Your task to perform on an android device: toggle data saver in the chrome app Image 0: 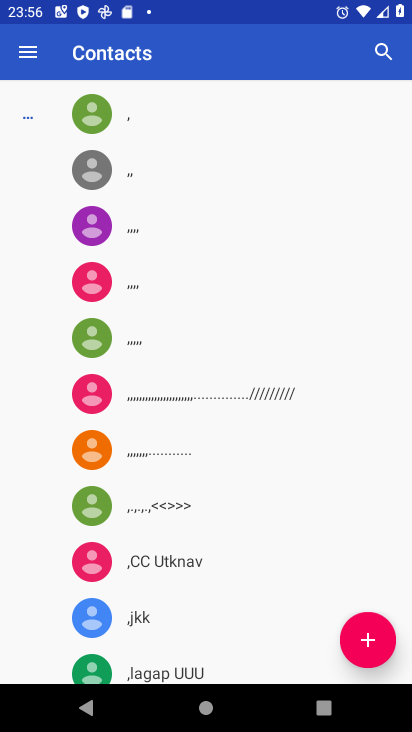
Step 0: press home button
Your task to perform on an android device: toggle data saver in the chrome app Image 1: 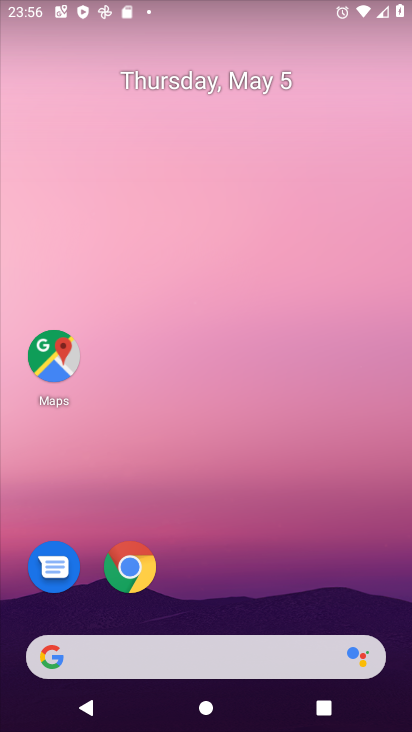
Step 1: click (134, 556)
Your task to perform on an android device: toggle data saver in the chrome app Image 2: 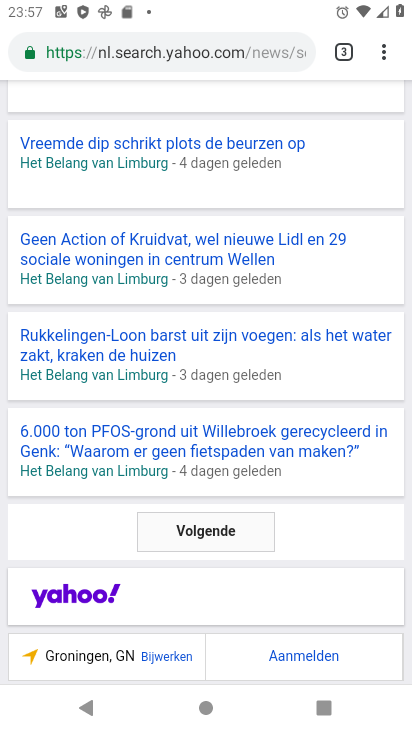
Step 2: drag from (316, 177) to (342, 541)
Your task to perform on an android device: toggle data saver in the chrome app Image 3: 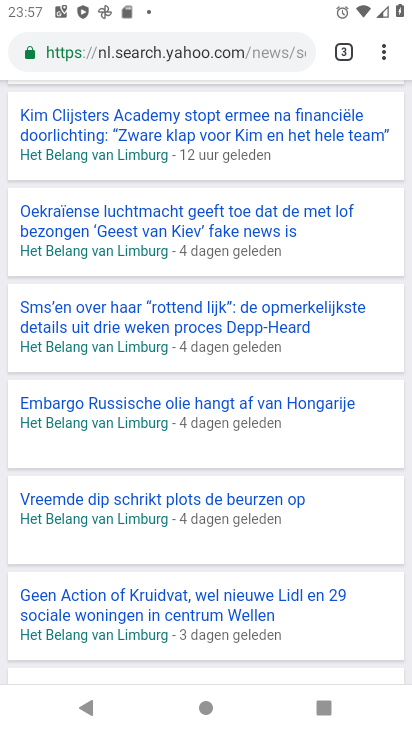
Step 3: click (381, 47)
Your task to perform on an android device: toggle data saver in the chrome app Image 4: 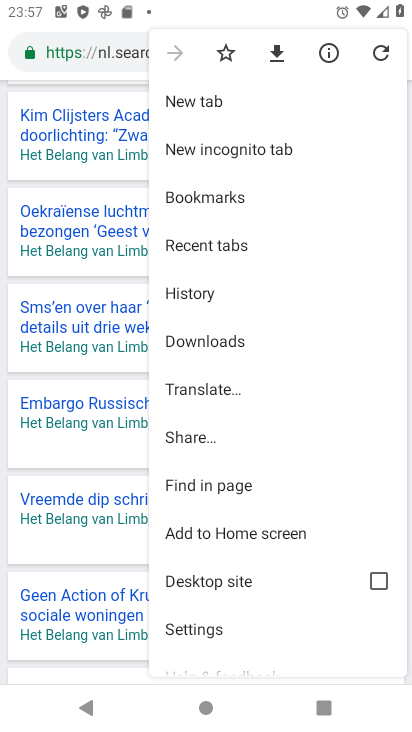
Step 4: drag from (259, 598) to (276, 350)
Your task to perform on an android device: toggle data saver in the chrome app Image 5: 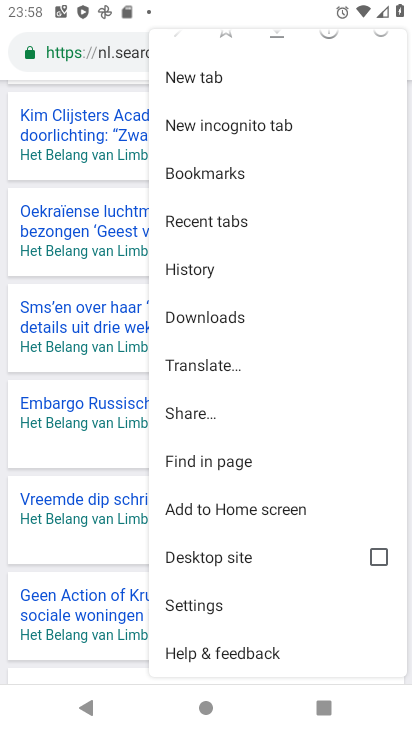
Step 5: click (220, 607)
Your task to perform on an android device: toggle data saver in the chrome app Image 6: 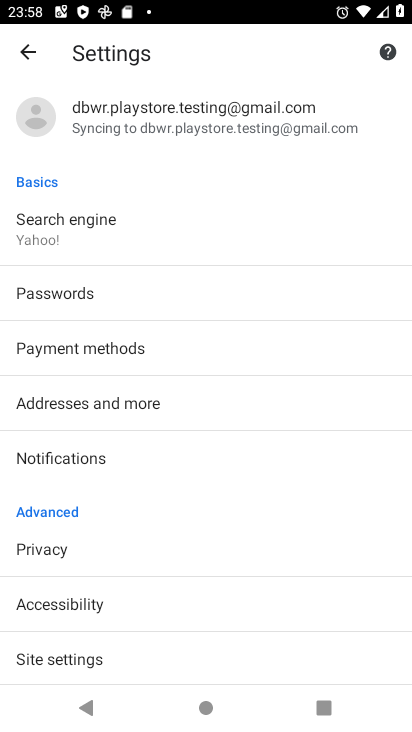
Step 6: drag from (164, 601) to (163, 372)
Your task to perform on an android device: toggle data saver in the chrome app Image 7: 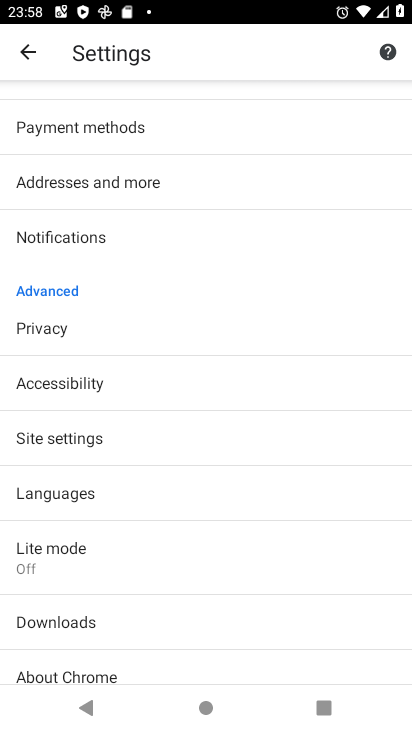
Step 7: drag from (163, 576) to (178, 432)
Your task to perform on an android device: toggle data saver in the chrome app Image 8: 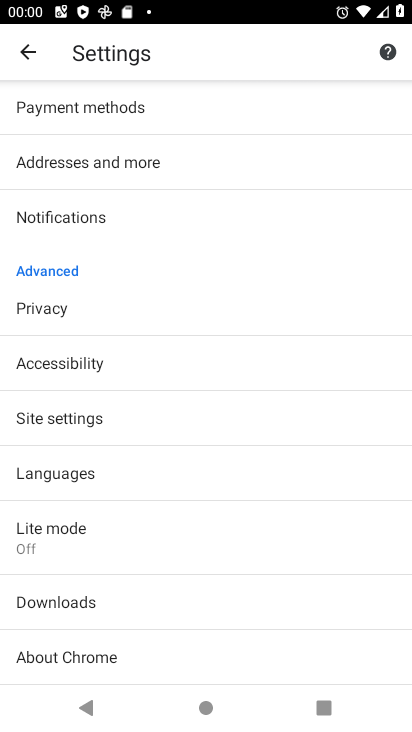
Step 8: drag from (161, 244) to (167, 542)
Your task to perform on an android device: toggle data saver in the chrome app Image 9: 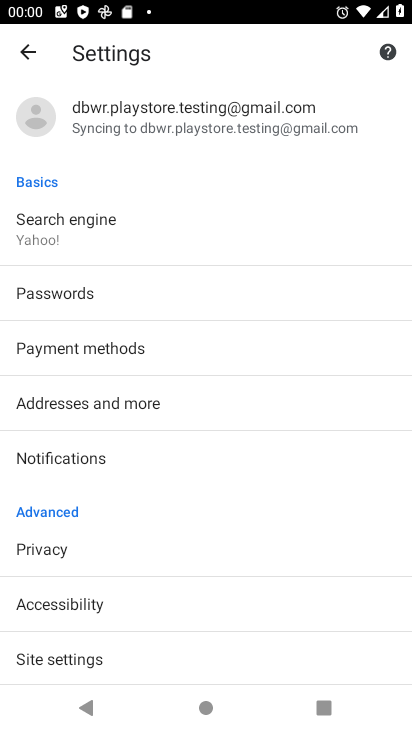
Step 9: drag from (186, 656) to (169, 345)
Your task to perform on an android device: toggle data saver in the chrome app Image 10: 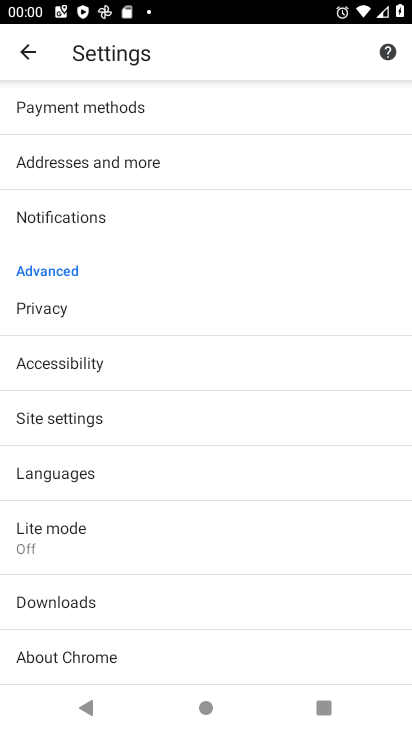
Step 10: click (130, 424)
Your task to perform on an android device: toggle data saver in the chrome app Image 11: 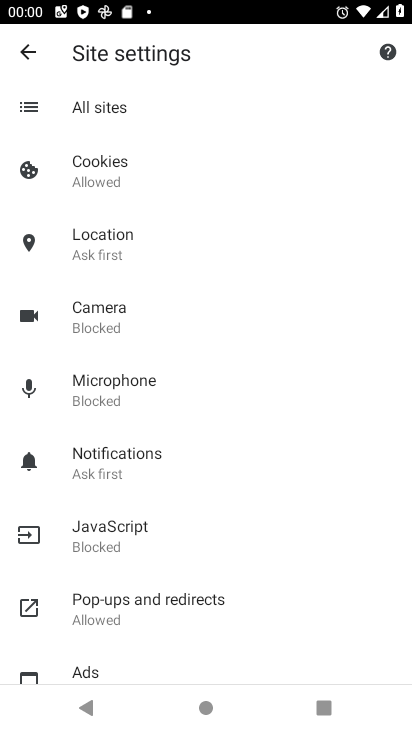
Step 11: click (27, 49)
Your task to perform on an android device: toggle data saver in the chrome app Image 12: 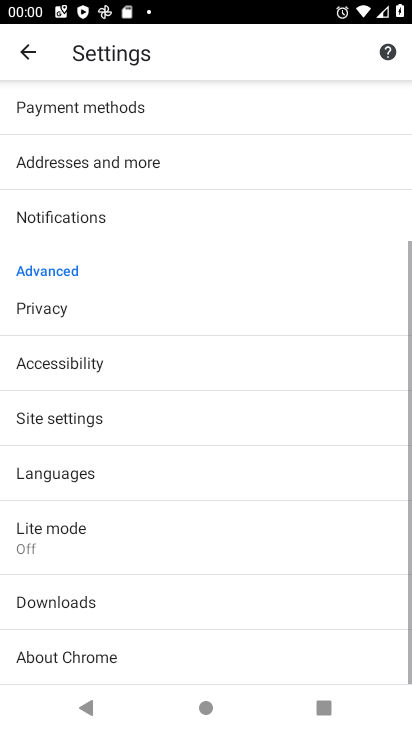
Step 12: drag from (144, 611) to (175, 260)
Your task to perform on an android device: toggle data saver in the chrome app Image 13: 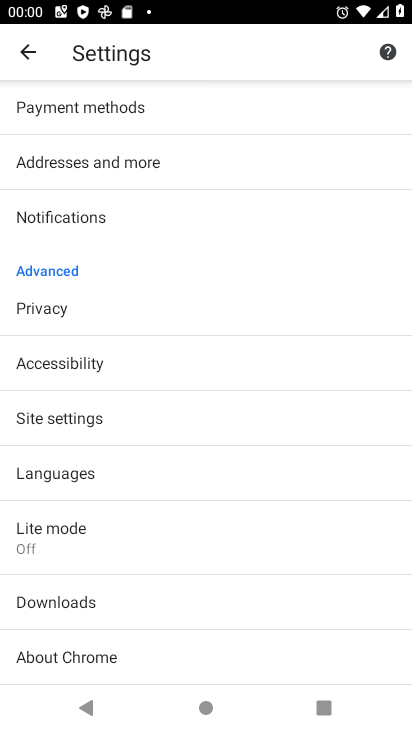
Step 13: click (165, 543)
Your task to perform on an android device: toggle data saver in the chrome app Image 14: 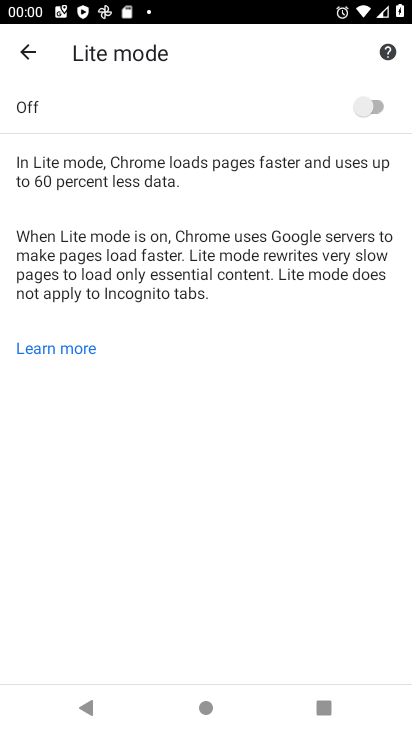
Step 14: click (377, 106)
Your task to perform on an android device: toggle data saver in the chrome app Image 15: 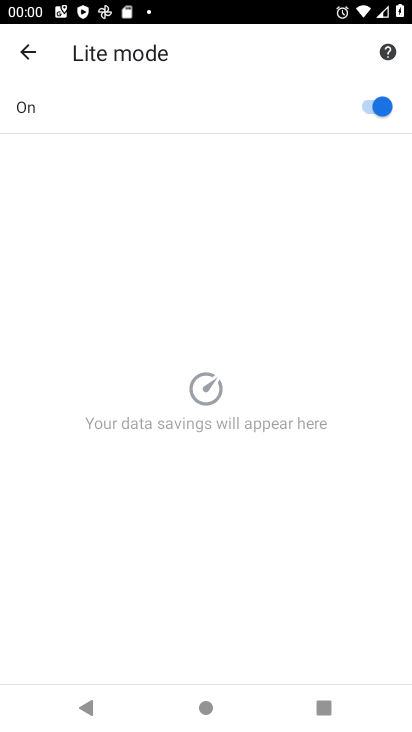
Step 15: task complete